Your task to perform on an android device: Open Google Image 0: 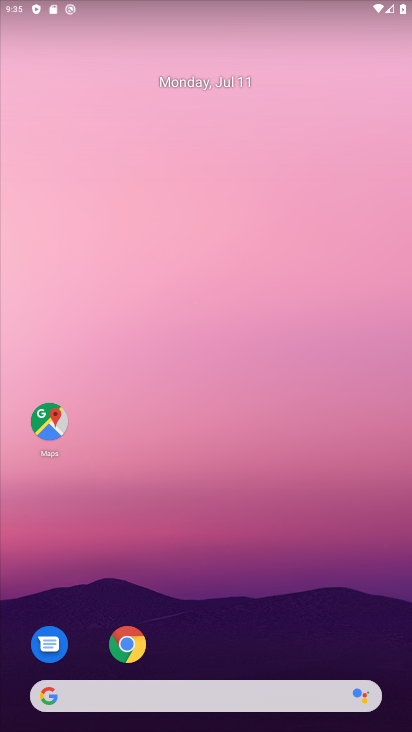
Step 0: drag from (206, 638) to (252, 87)
Your task to perform on an android device: Open Google Image 1: 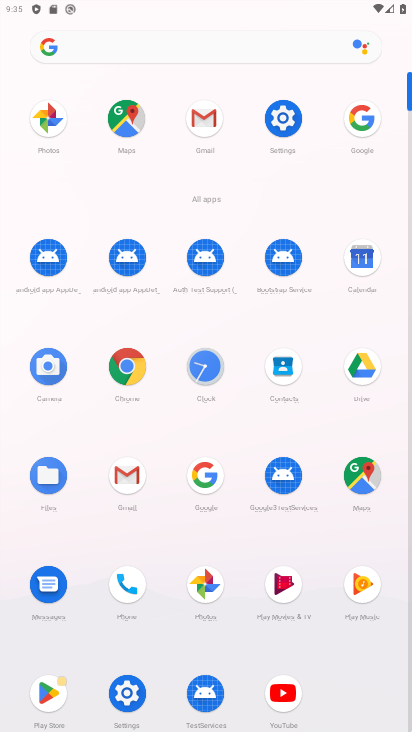
Step 1: click (368, 120)
Your task to perform on an android device: Open Google Image 2: 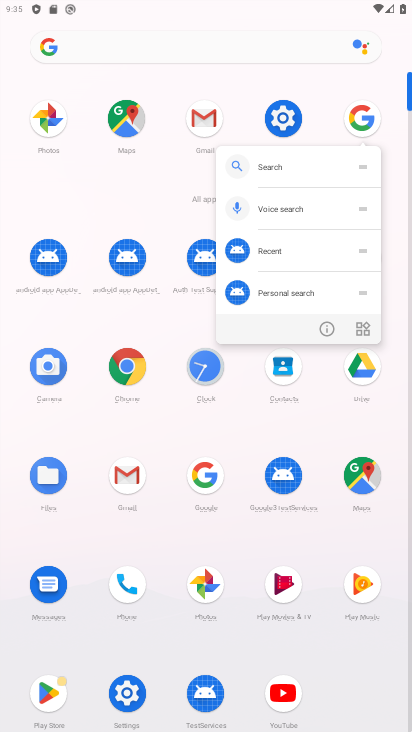
Step 2: click (361, 118)
Your task to perform on an android device: Open Google Image 3: 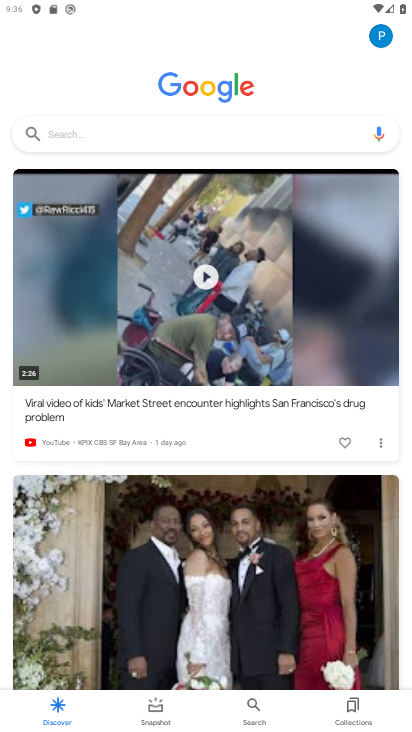
Step 3: task complete